Your task to perform on an android device: Play the last video I watched on Youtube Image 0: 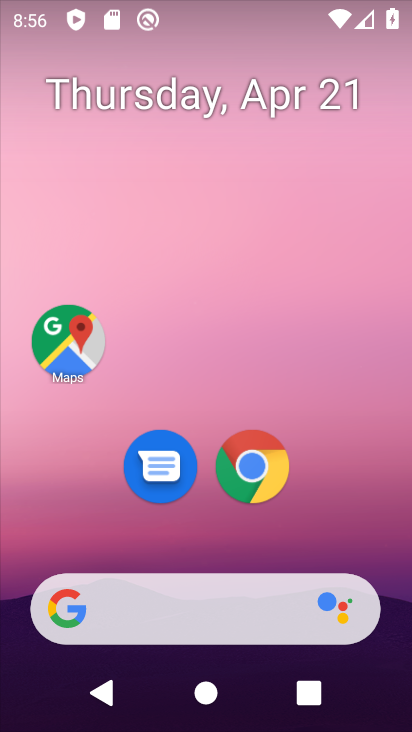
Step 0: drag from (310, 485) to (358, 63)
Your task to perform on an android device: Play the last video I watched on Youtube Image 1: 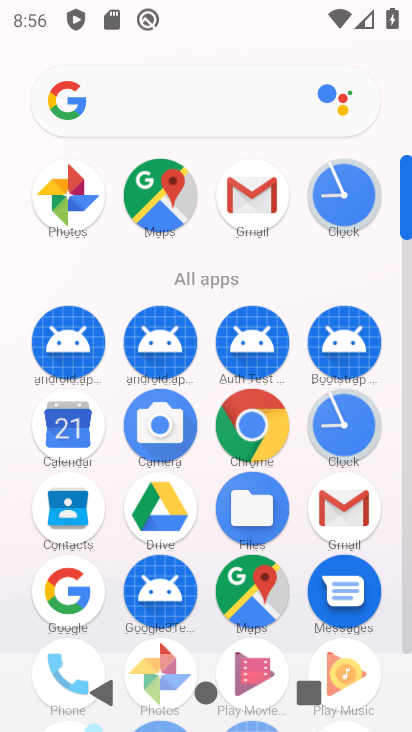
Step 1: drag from (296, 630) to (308, 238)
Your task to perform on an android device: Play the last video I watched on Youtube Image 2: 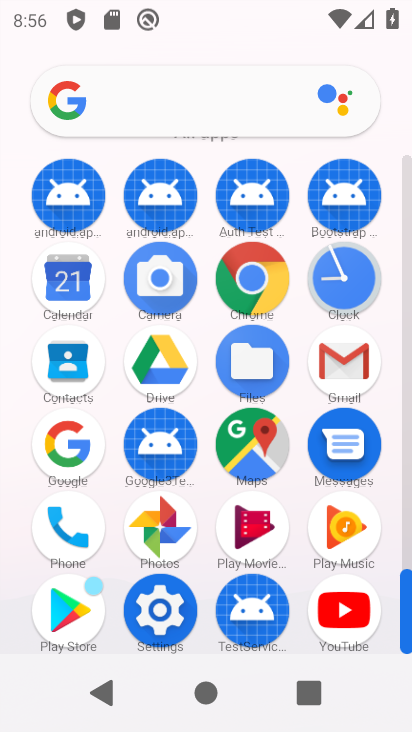
Step 2: click (342, 616)
Your task to perform on an android device: Play the last video I watched on Youtube Image 3: 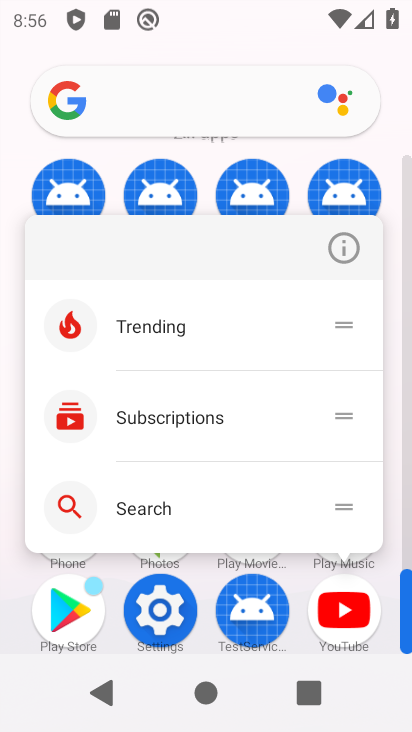
Step 3: click (334, 620)
Your task to perform on an android device: Play the last video I watched on Youtube Image 4: 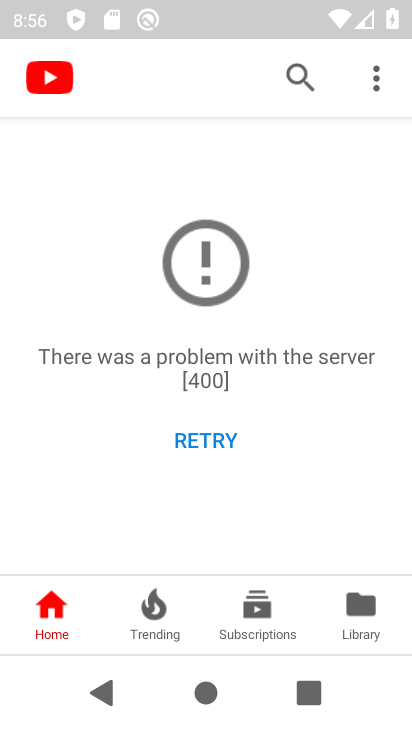
Step 4: click (362, 629)
Your task to perform on an android device: Play the last video I watched on Youtube Image 5: 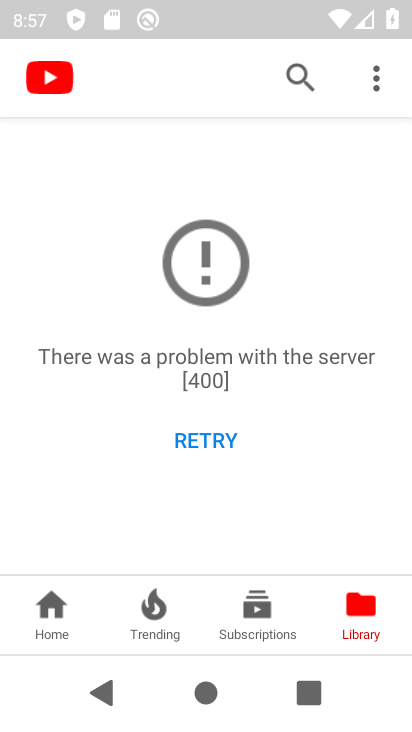
Step 5: task complete